Your task to perform on an android device: set an alarm Image 0: 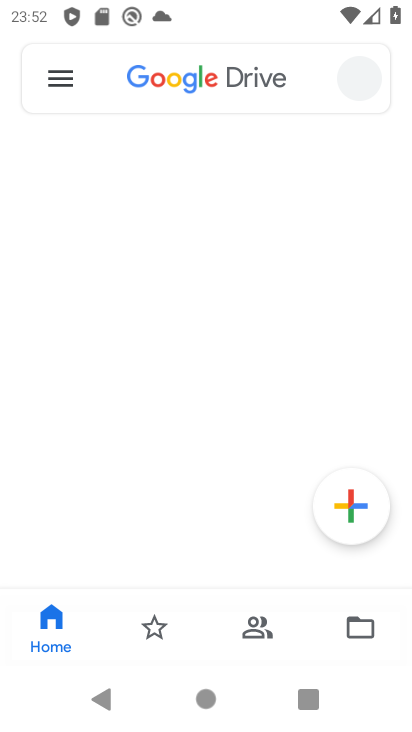
Step 0: press home button
Your task to perform on an android device: set an alarm Image 1: 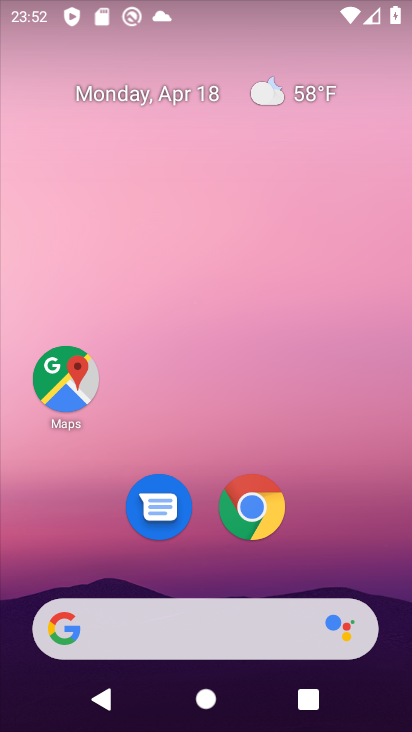
Step 1: drag from (207, 566) to (218, 43)
Your task to perform on an android device: set an alarm Image 2: 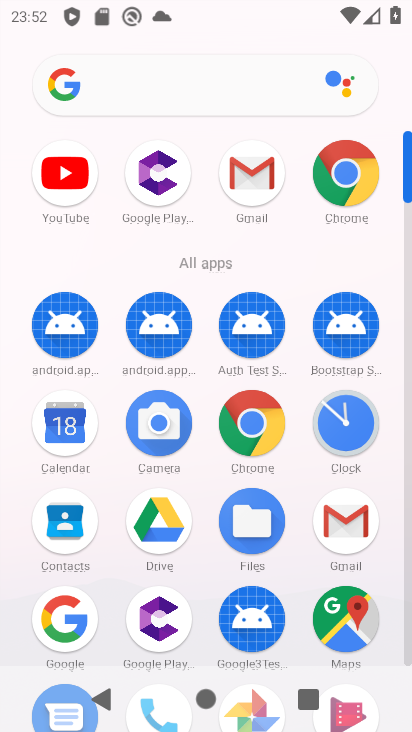
Step 2: click (346, 414)
Your task to perform on an android device: set an alarm Image 3: 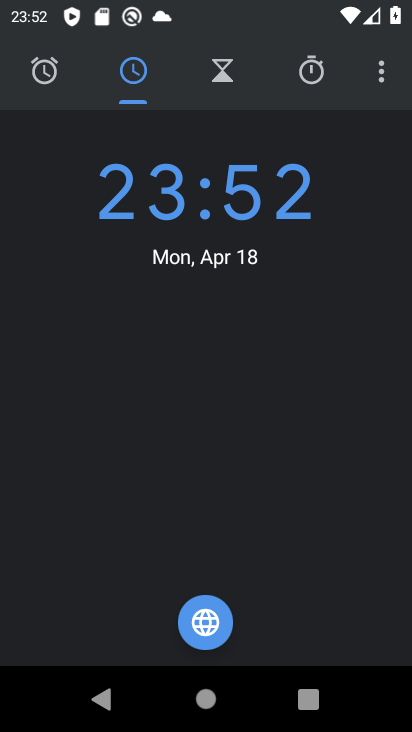
Step 3: click (380, 76)
Your task to perform on an android device: set an alarm Image 4: 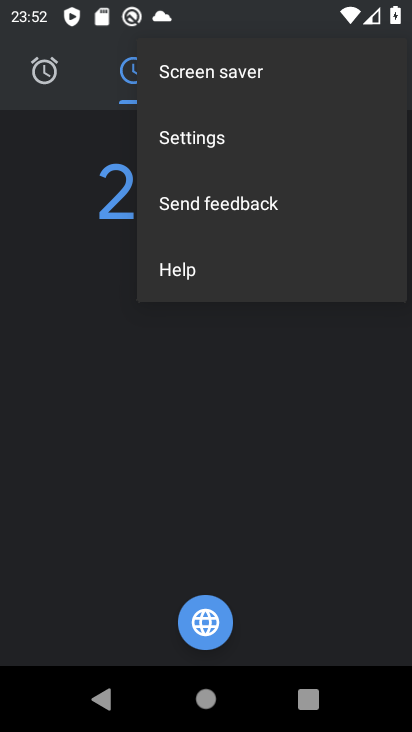
Step 4: click (48, 270)
Your task to perform on an android device: set an alarm Image 5: 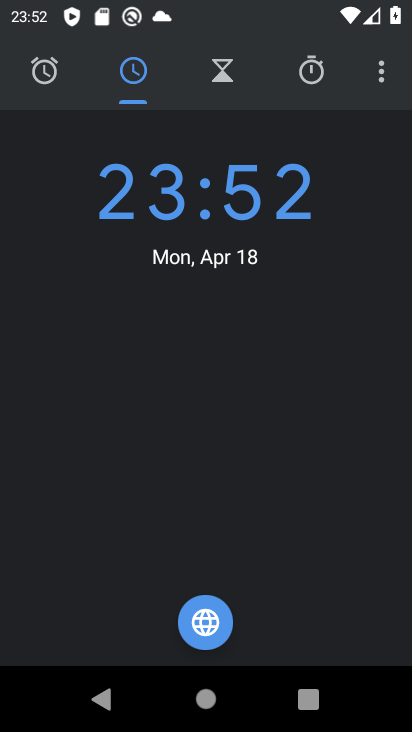
Step 5: click (45, 72)
Your task to perform on an android device: set an alarm Image 6: 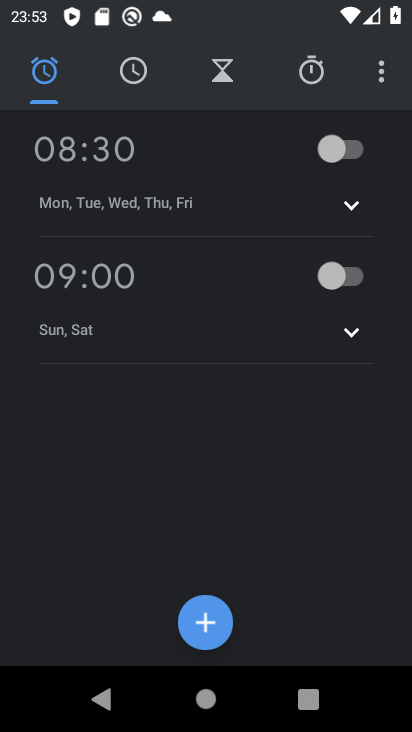
Step 6: click (154, 281)
Your task to perform on an android device: set an alarm Image 7: 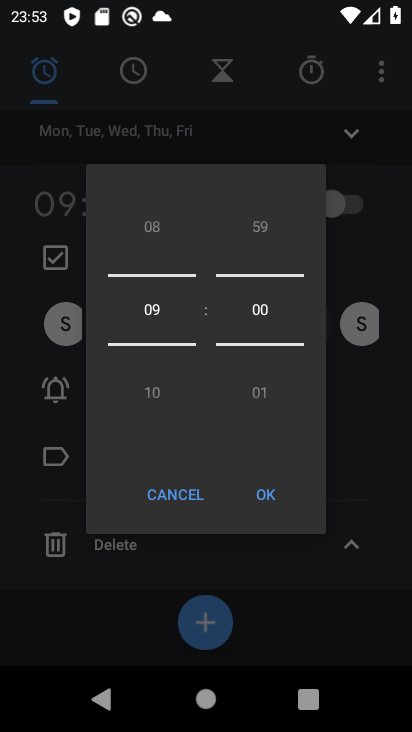
Step 7: click (261, 500)
Your task to perform on an android device: set an alarm Image 8: 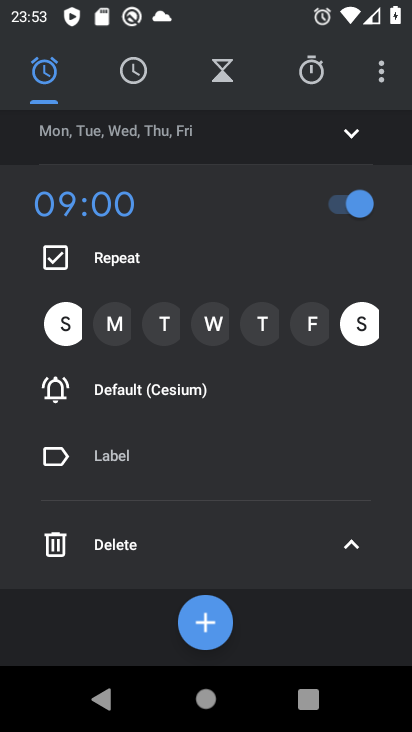
Step 8: task complete